Your task to perform on an android device: Open maps Image 0: 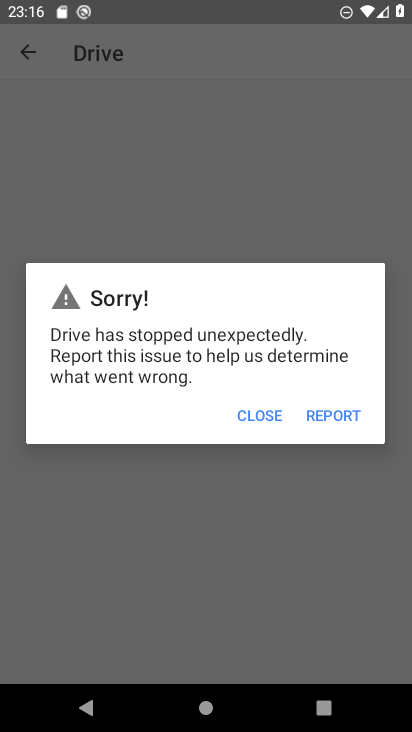
Step 0: press home button
Your task to perform on an android device: Open maps Image 1: 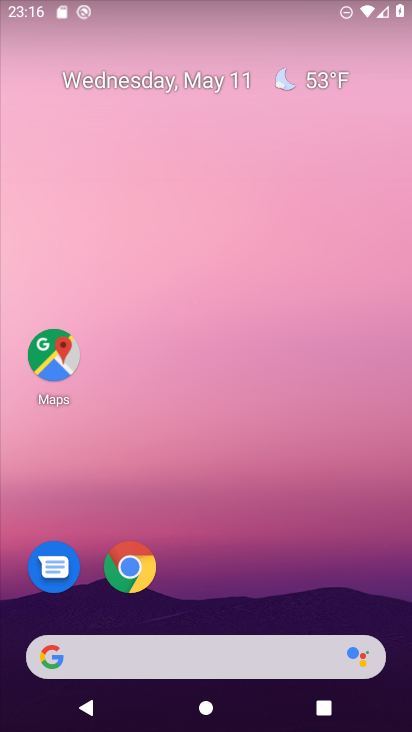
Step 1: click (51, 360)
Your task to perform on an android device: Open maps Image 2: 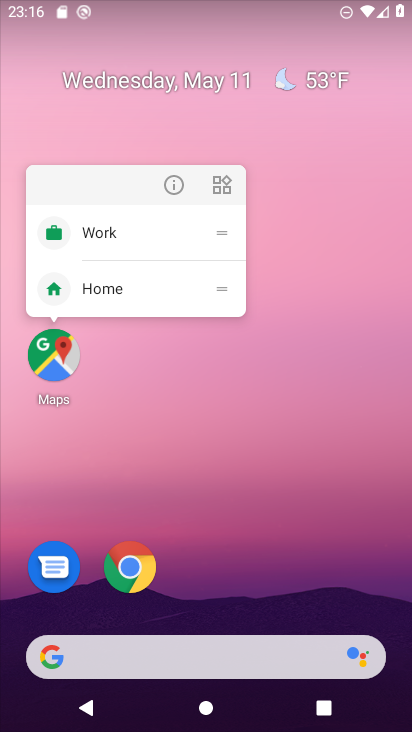
Step 2: click (64, 369)
Your task to perform on an android device: Open maps Image 3: 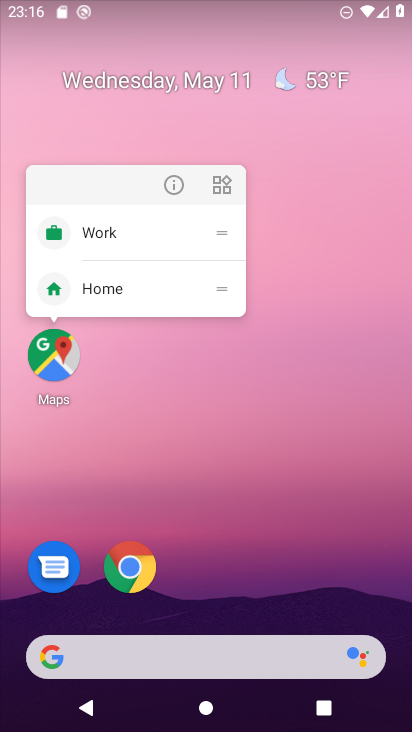
Step 3: click (50, 361)
Your task to perform on an android device: Open maps Image 4: 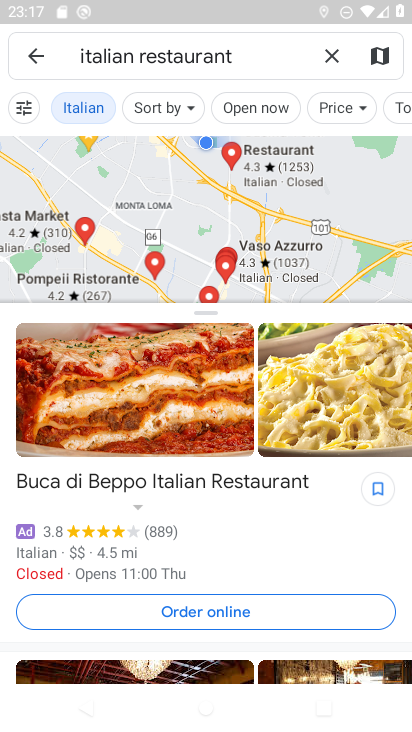
Step 4: task complete